Your task to perform on an android device: turn off priority inbox in the gmail app Image 0: 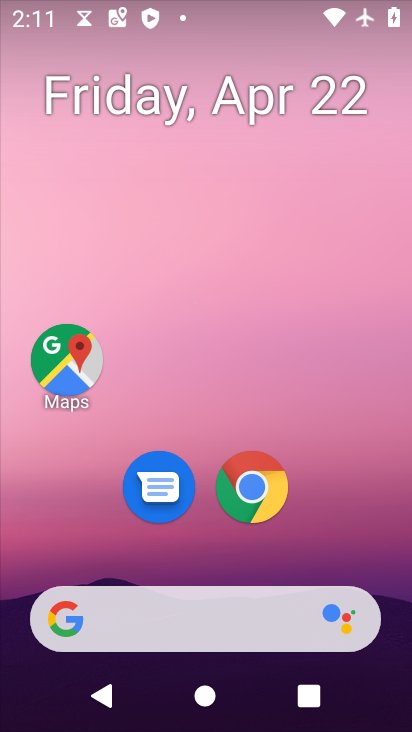
Step 0: drag from (144, 621) to (247, 234)
Your task to perform on an android device: turn off priority inbox in the gmail app Image 1: 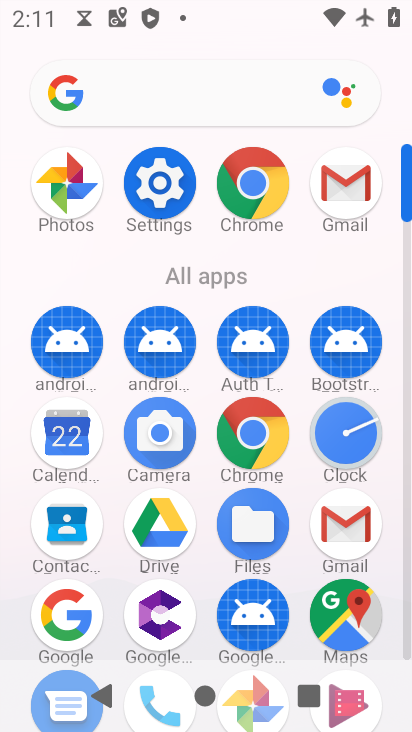
Step 1: click (352, 197)
Your task to perform on an android device: turn off priority inbox in the gmail app Image 2: 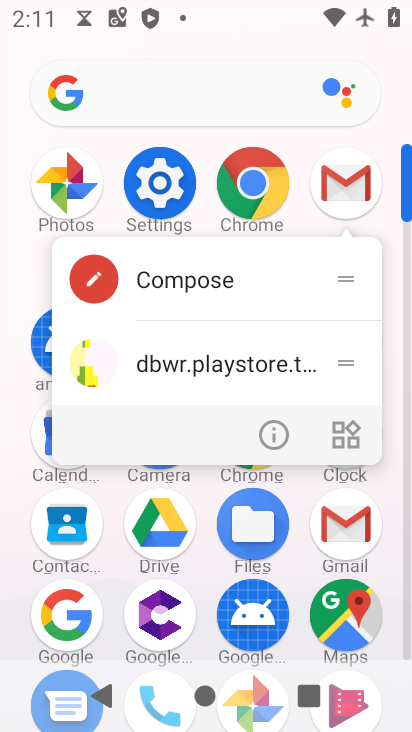
Step 2: click (345, 190)
Your task to perform on an android device: turn off priority inbox in the gmail app Image 3: 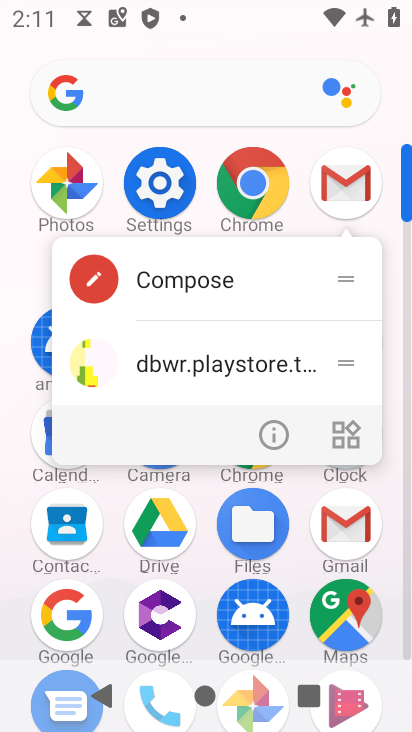
Step 3: click (341, 201)
Your task to perform on an android device: turn off priority inbox in the gmail app Image 4: 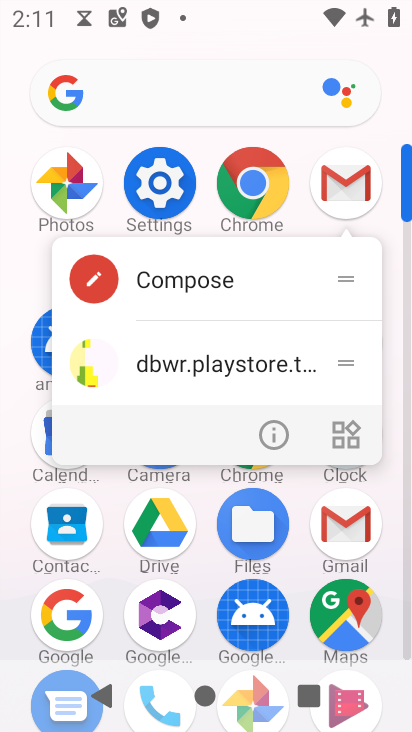
Step 4: click (351, 188)
Your task to perform on an android device: turn off priority inbox in the gmail app Image 5: 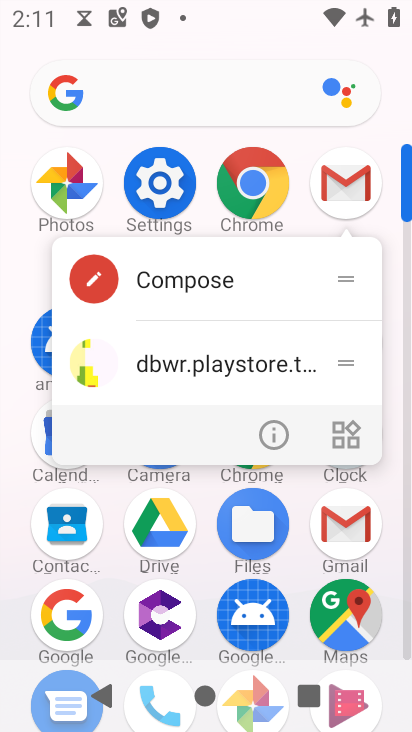
Step 5: click (346, 192)
Your task to perform on an android device: turn off priority inbox in the gmail app Image 6: 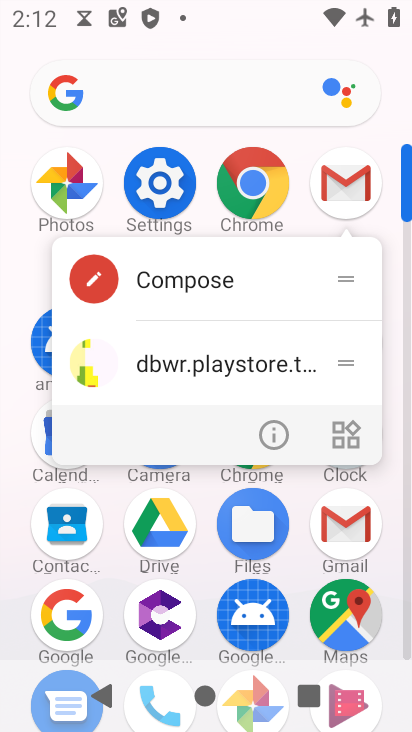
Step 6: click (347, 191)
Your task to perform on an android device: turn off priority inbox in the gmail app Image 7: 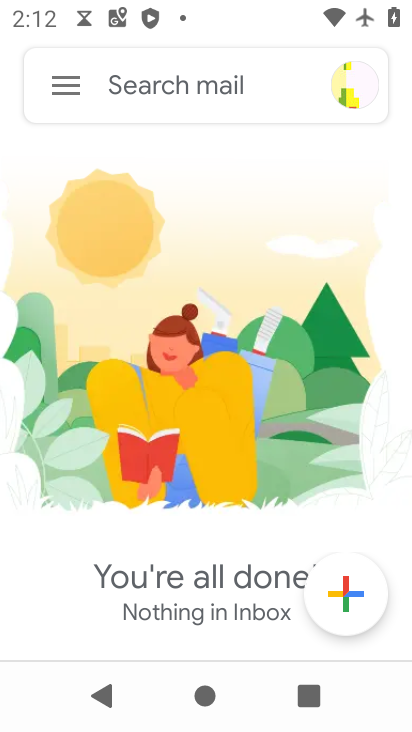
Step 7: click (68, 93)
Your task to perform on an android device: turn off priority inbox in the gmail app Image 8: 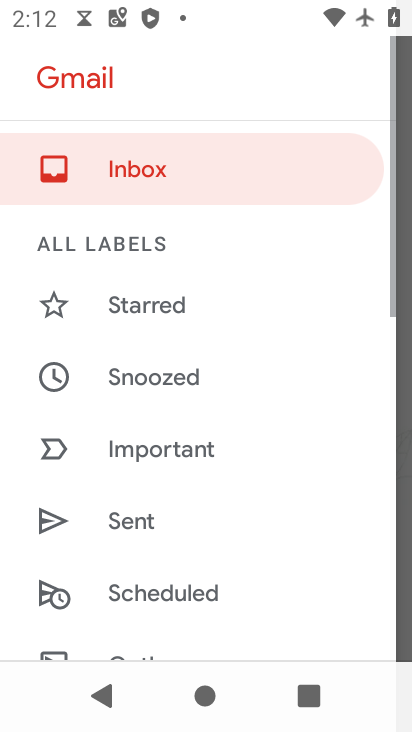
Step 8: drag from (170, 619) to (305, 326)
Your task to perform on an android device: turn off priority inbox in the gmail app Image 9: 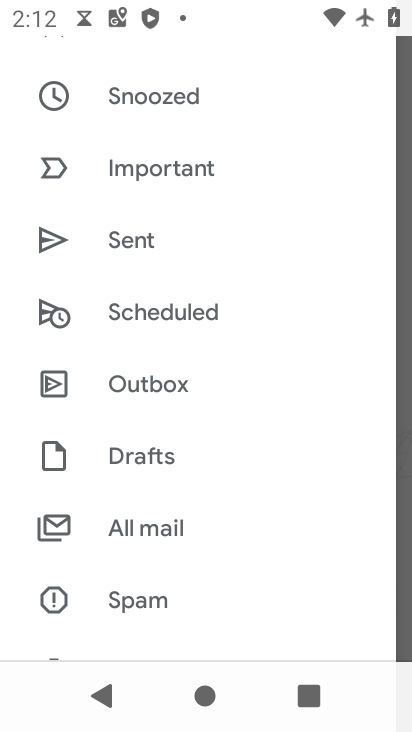
Step 9: drag from (165, 609) to (338, 209)
Your task to perform on an android device: turn off priority inbox in the gmail app Image 10: 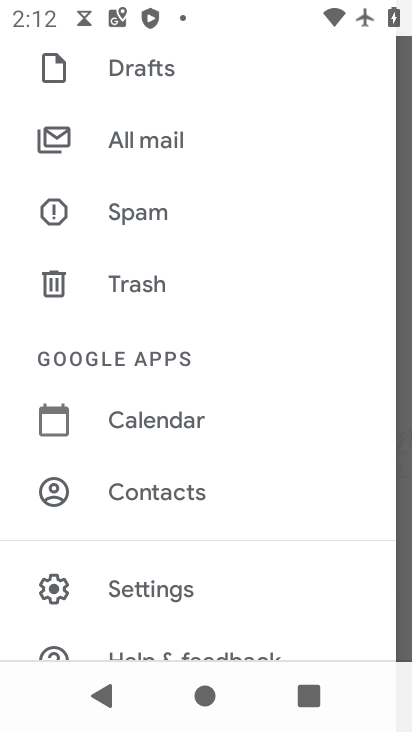
Step 10: click (160, 582)
Your task to perform on an android device: turn off priority inbox in the gmail app Image 11: 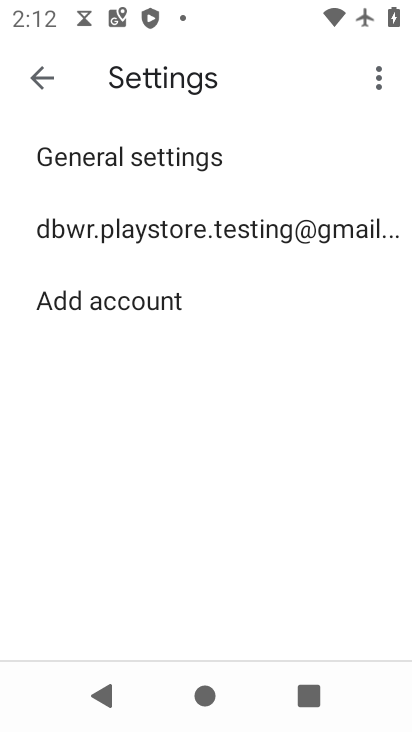
Step 11: click (222, 237)
Your task to perform on an android device: turn off priority inbox in the gmail app Image 12: 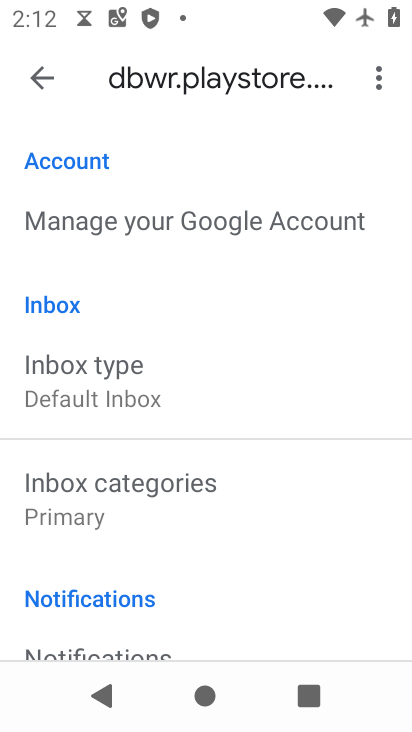
Step 12: click (90, 388)
Your task to perform on an android device: turn off priority inbox in the gmail app Image 13: 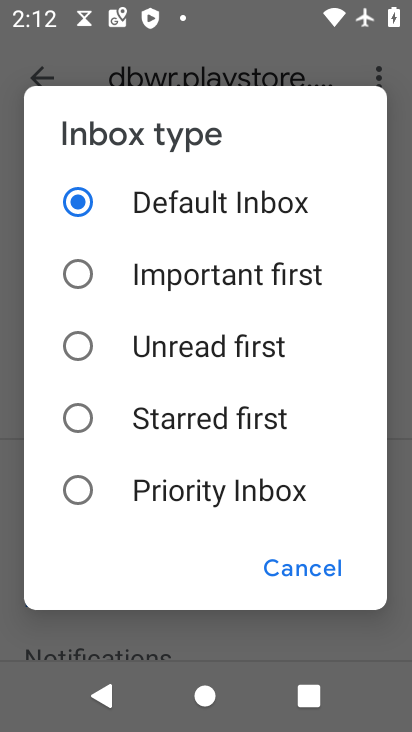
Step 13: task complete